Your task to perform on an android device: turn on airplane mode Image 0: 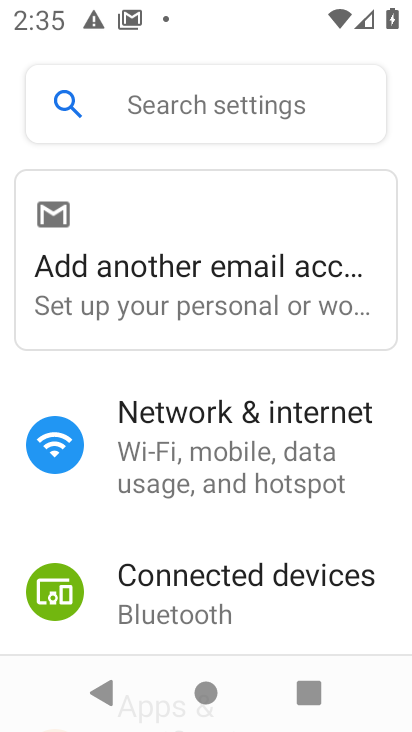
Step 0: press home button
Your task to perform on an android device: turn on airplane mode Image 1: 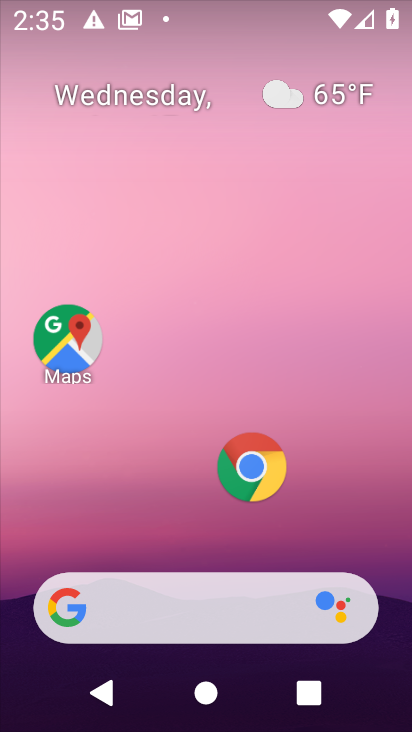
Step 1: task complete